Your task to perform on an android device: Show me productivity apps on the Play Store Image 0: 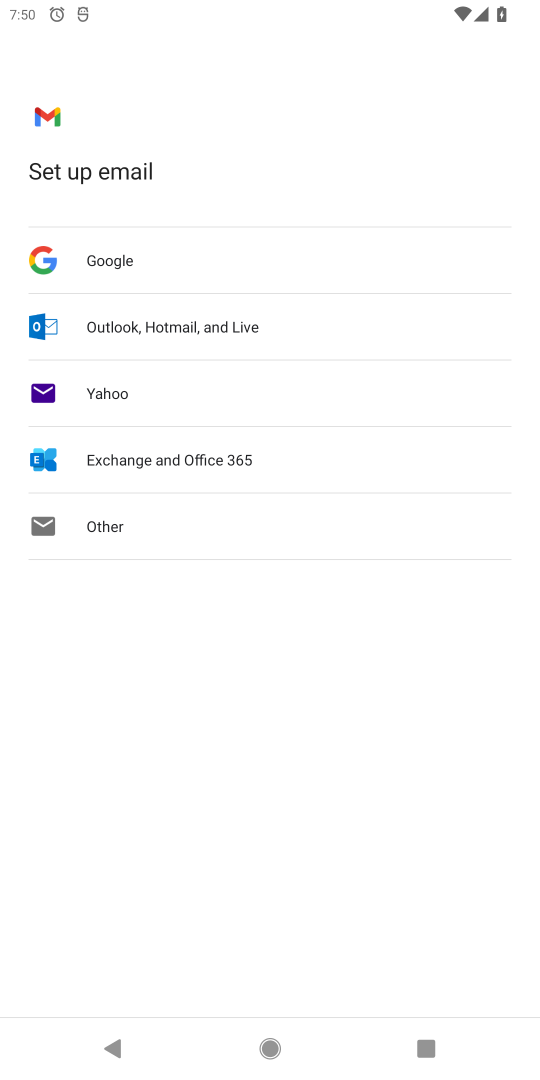
Step 0: press home button
Your task to perform on an android device: Show me productivity apps on the Play Store Image 1: 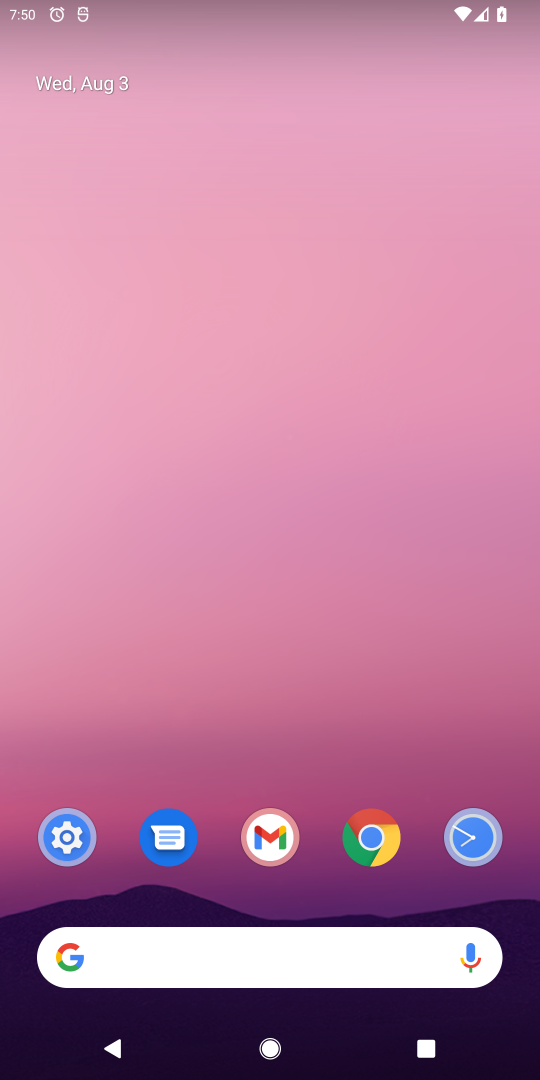
Step 1: drag from (310, 910) to (463, 214)
Your task to perform on an android device: Show me productivity apps on the Play Store Image 2: 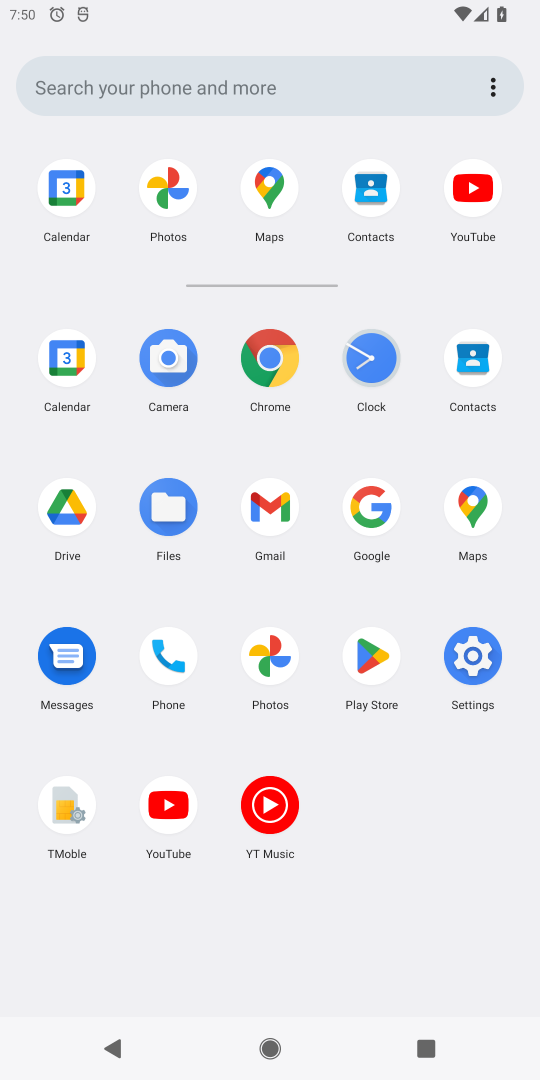
Step 2: click (385, 660)
Your task to perform on an android device: Show me productivity apps on the Play Store Image 3: 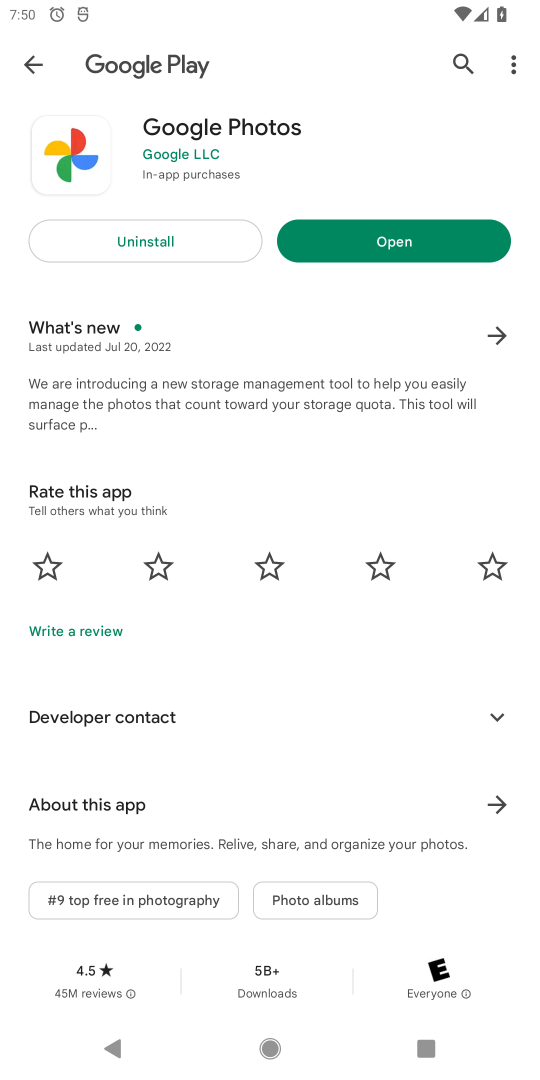
Step 3: click (30, 58)
Your task to perform on an android device: Show me productivity apps on the Play Store Image 4: 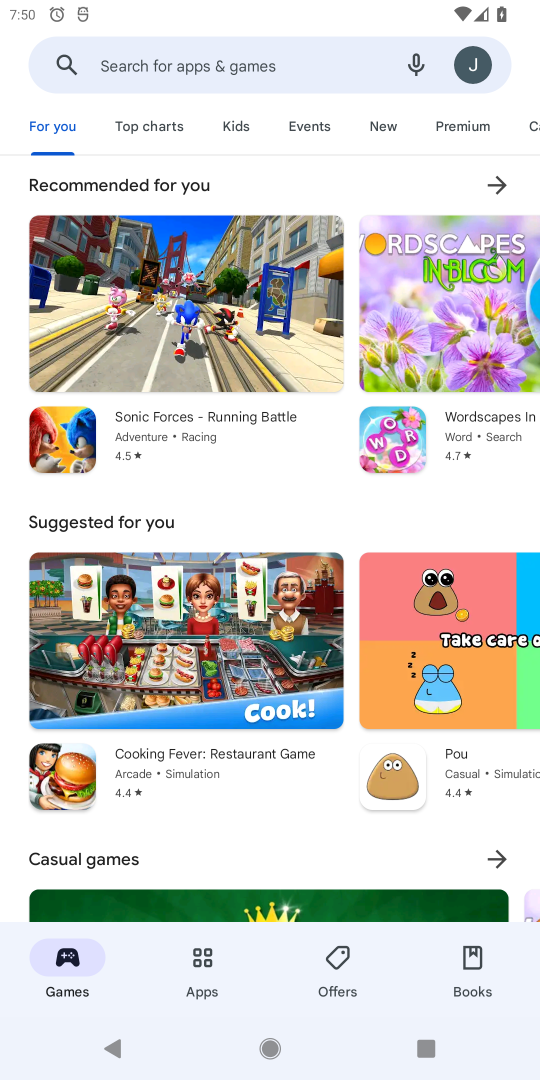
Step 4: click (204, 962)
Your task to perform on an android device: Show me productivity apps on the Play Store Image 5: 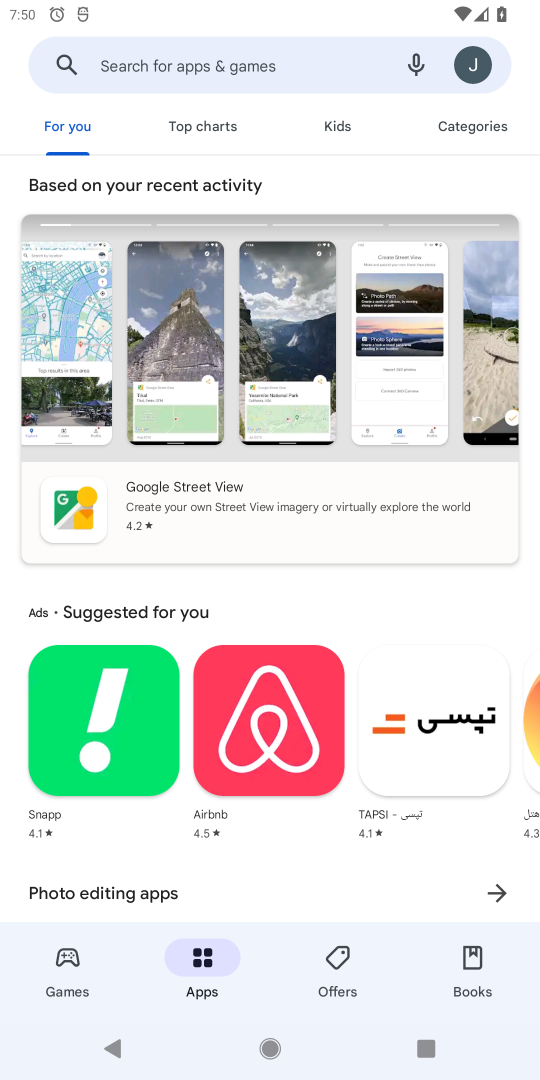
Step 5: click (486, 120)
Your task to perform on an android device: Show me productivity apps on the Play Store Image 6: 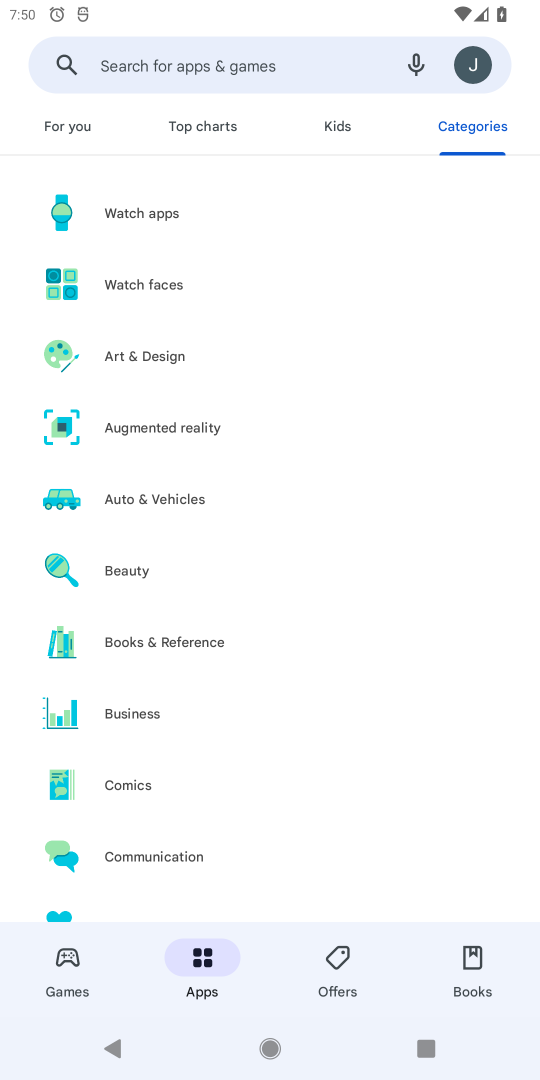
Step 6: drag from (419, 798) to (496, 13)
Your task to perform on an android device: Show me productivity apps on the Play Store Image 7: 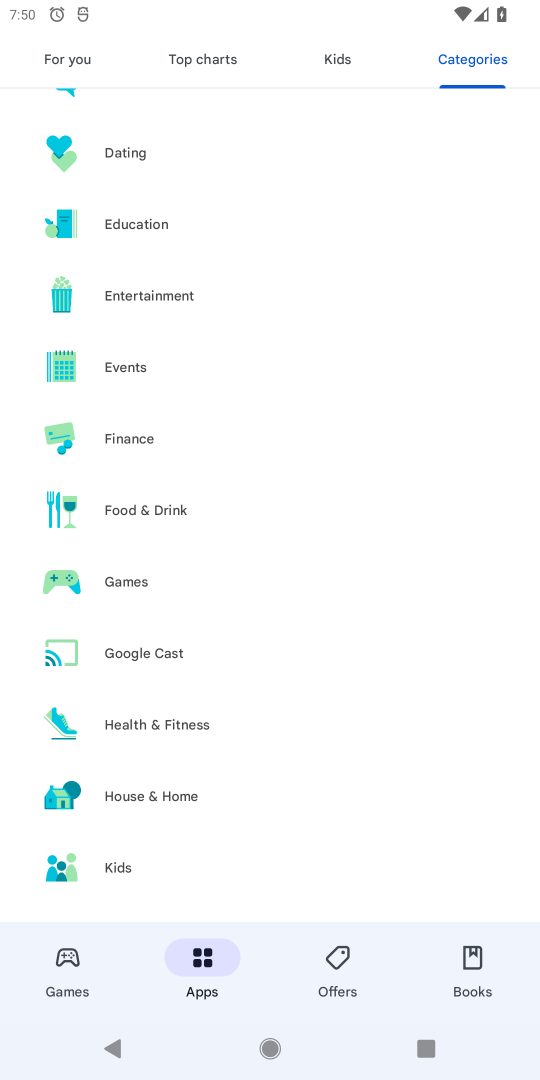
Step 7: drag from (425, 765) to (388, 43)
Your task to perform on an android device: Show me productivity apps on the Play Store Image 8: 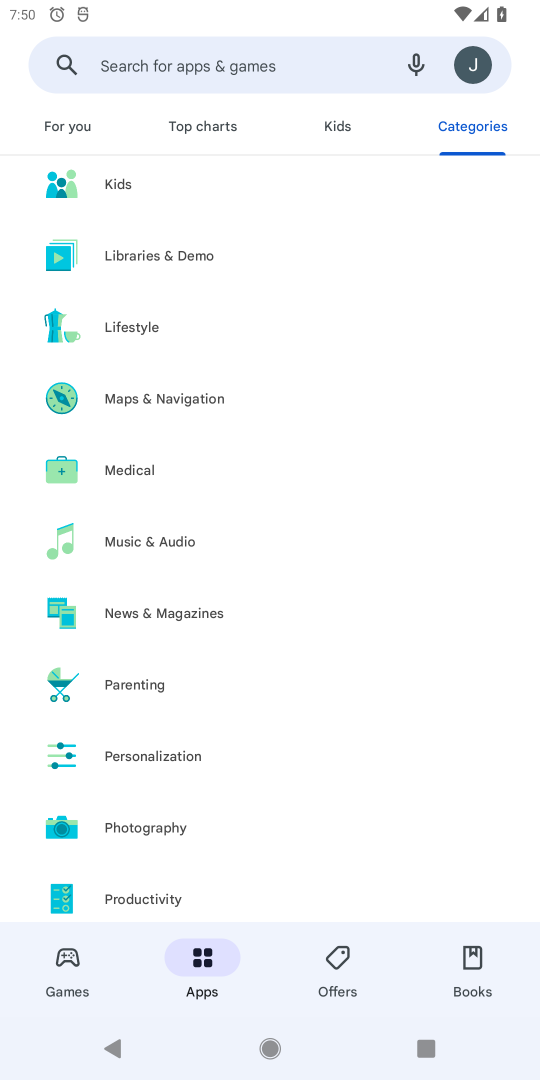
Step 8: click (141, 904)
Your task to perform on an android device: Show me productivity apps on the Play Store Image 9: 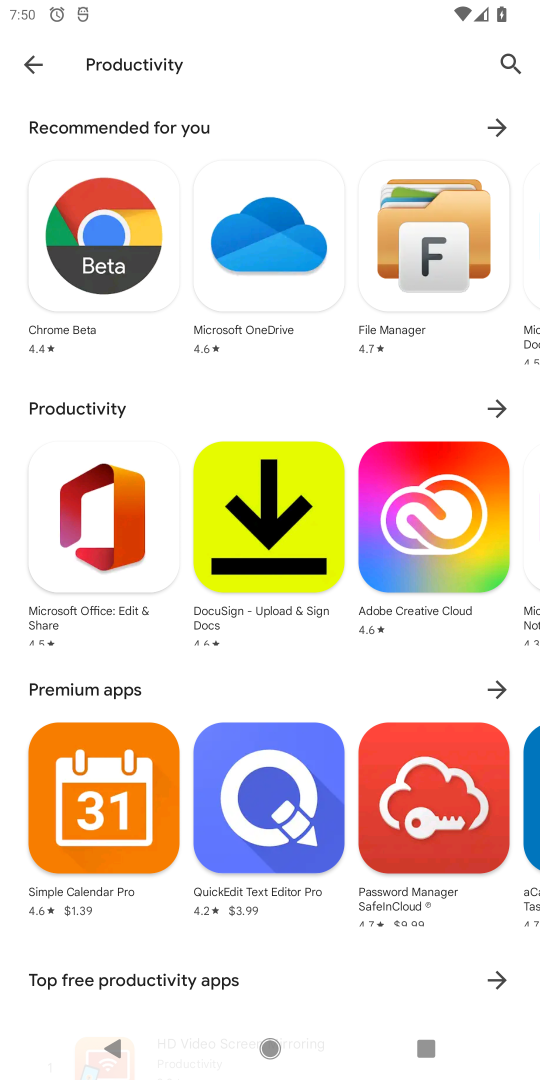
Step 9: task complete